Your task to perform on an android device: open app "Mercado Libre" Image 0: 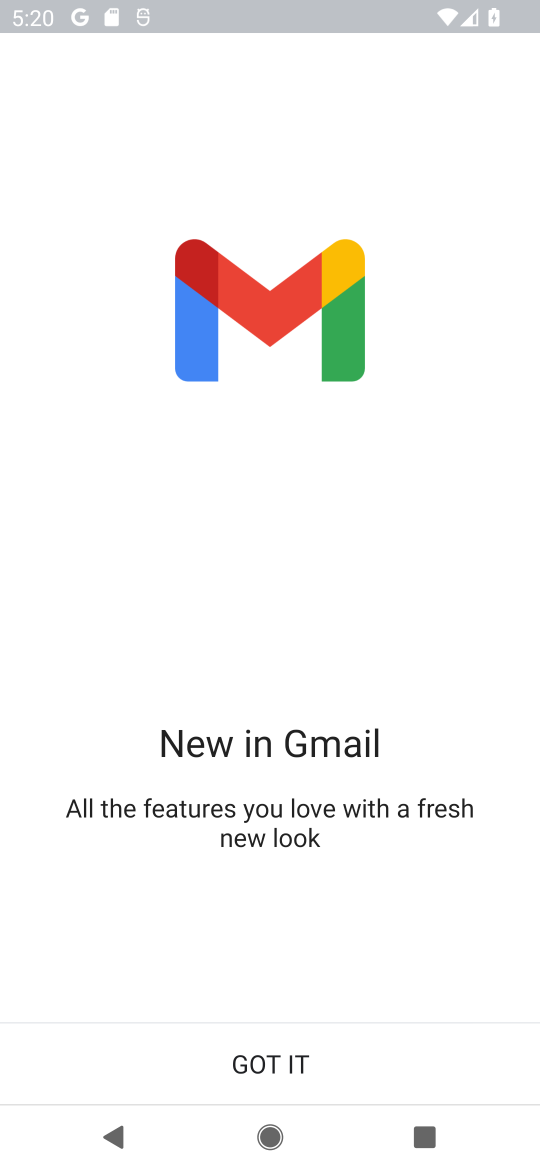
Step 0: press home button
Your task to perform on an android device: open app "Mercado Libre" Image 1: 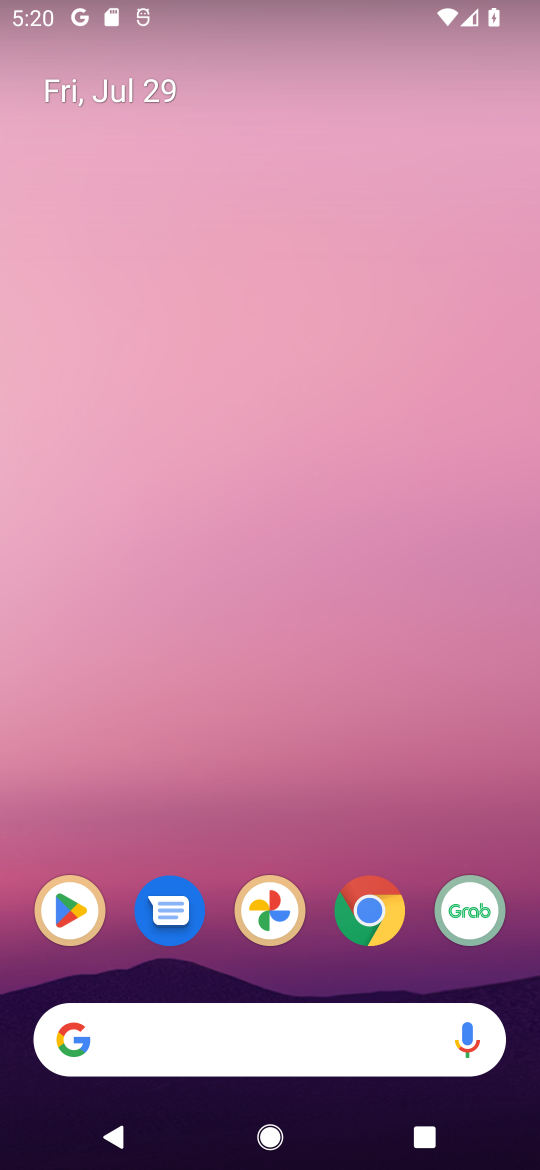
Step 1: click (62, 906)
Your task to perform on an android device: open app "Mercado Libre" Image 2: 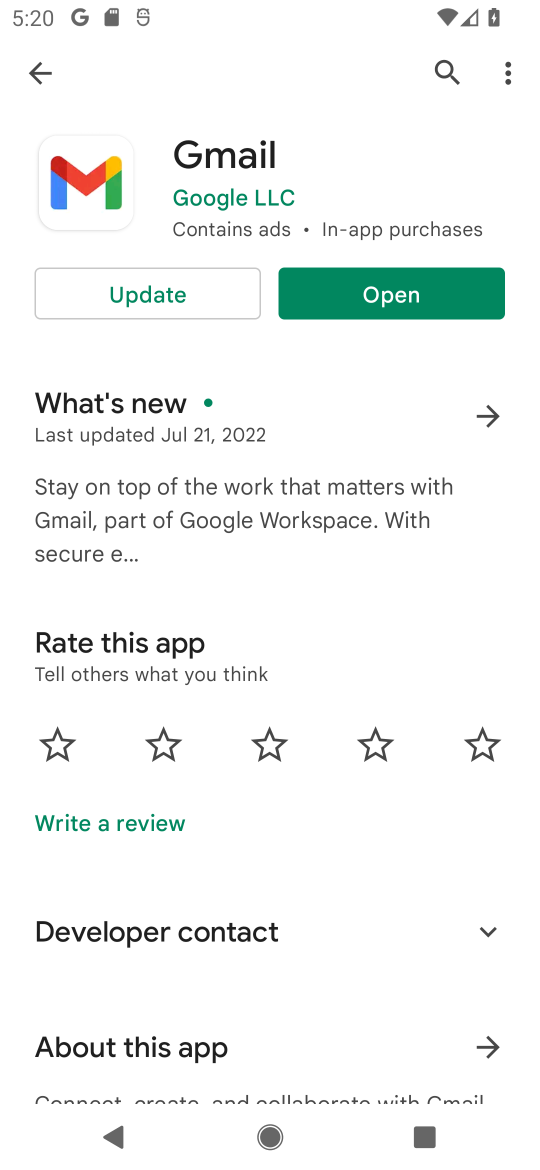
Step 2: click (440, 55)
Your task to perform on an android device: open app "Mercado Libre" Image 3: 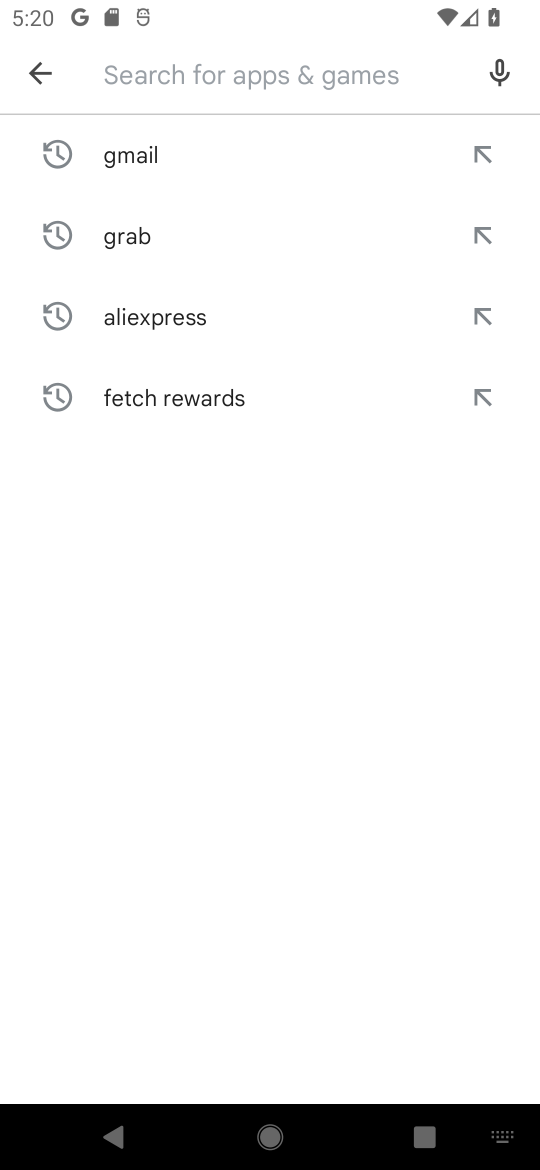
Step 3: type "mercado libre"
Your task to perform on an android device: open app "Mercado Libre" Image 4: 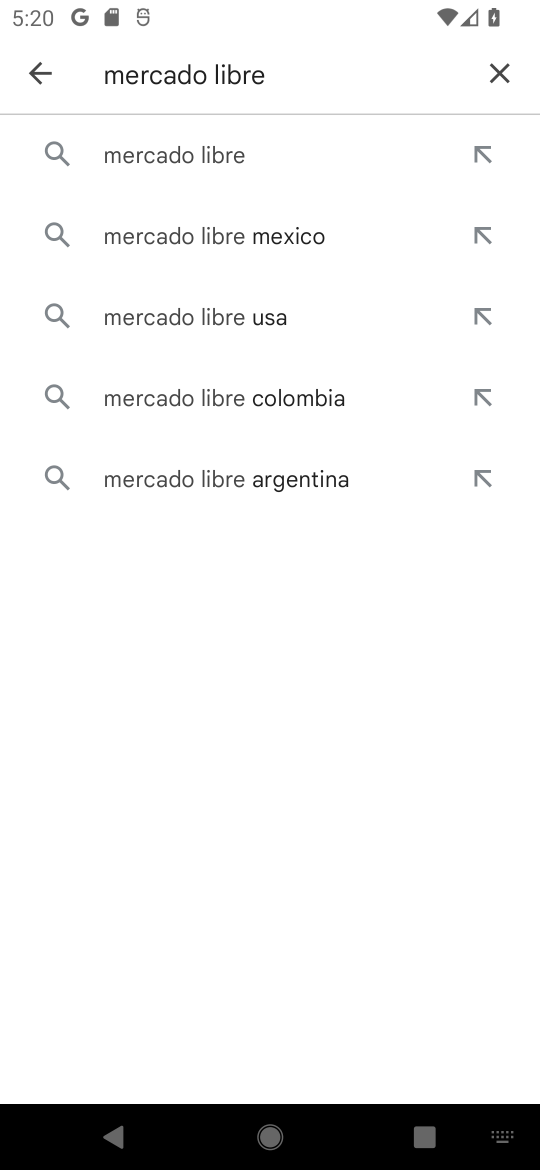
Step 4: click (288, 153)
Your task to perform on an android device: open app "Mercado Libre" Image 5: 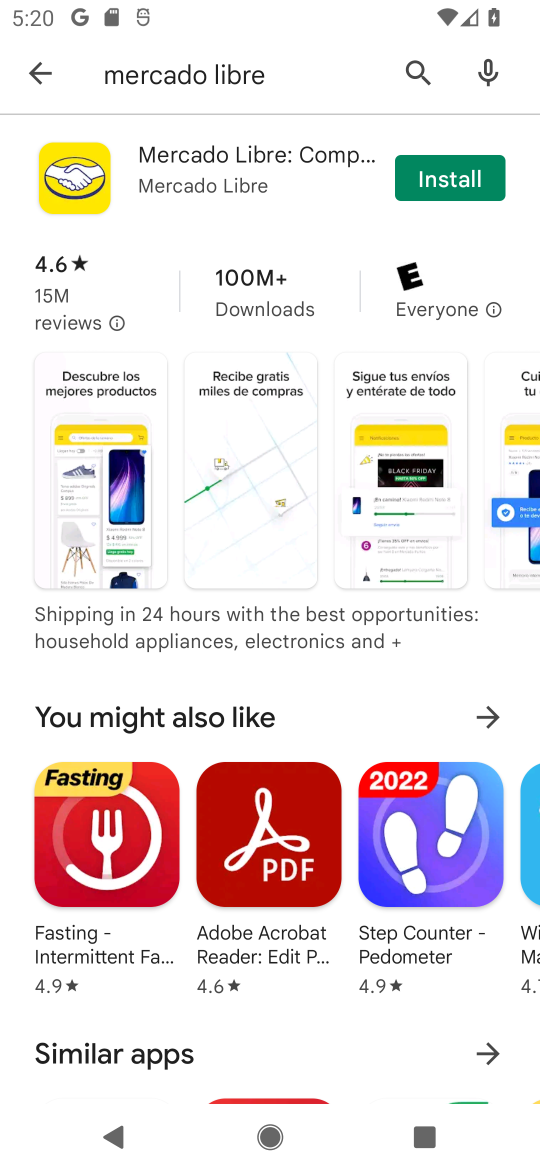
Step 5: click (251, 156)
Your task to perform on an android device: open app "Mercado Libre" Image 6: 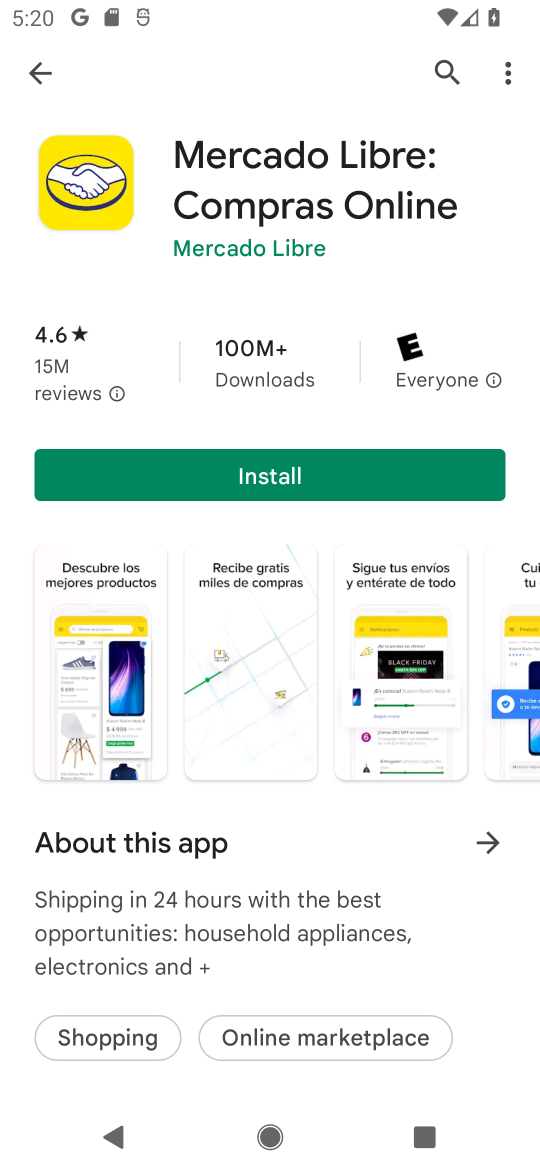
Step 6: task complete